Your task to perform on an android device: What is the news today? Image 0: 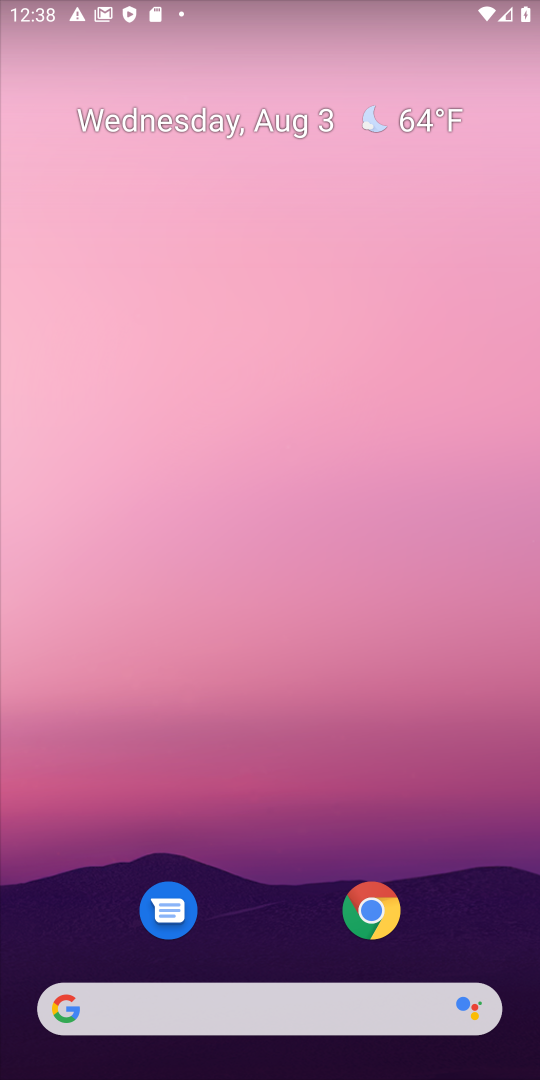
Step 0: drag from (372, 1004) to (218, 0)
Your task to perform on an android device: What is the news today? Image 1: 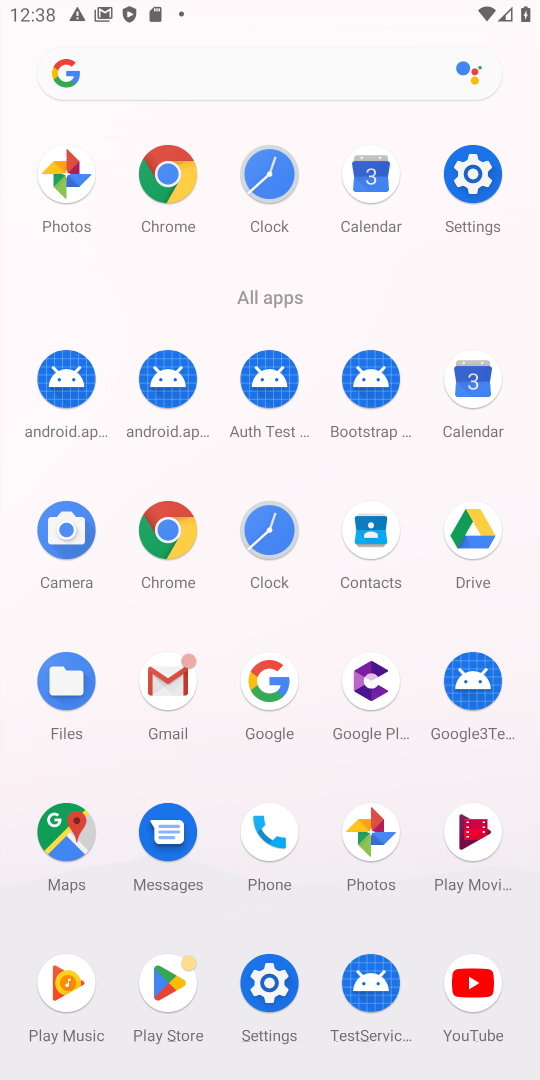
Step 1: click (180, 535)
Your task to perform on an android device: What is the news today? Image 2: 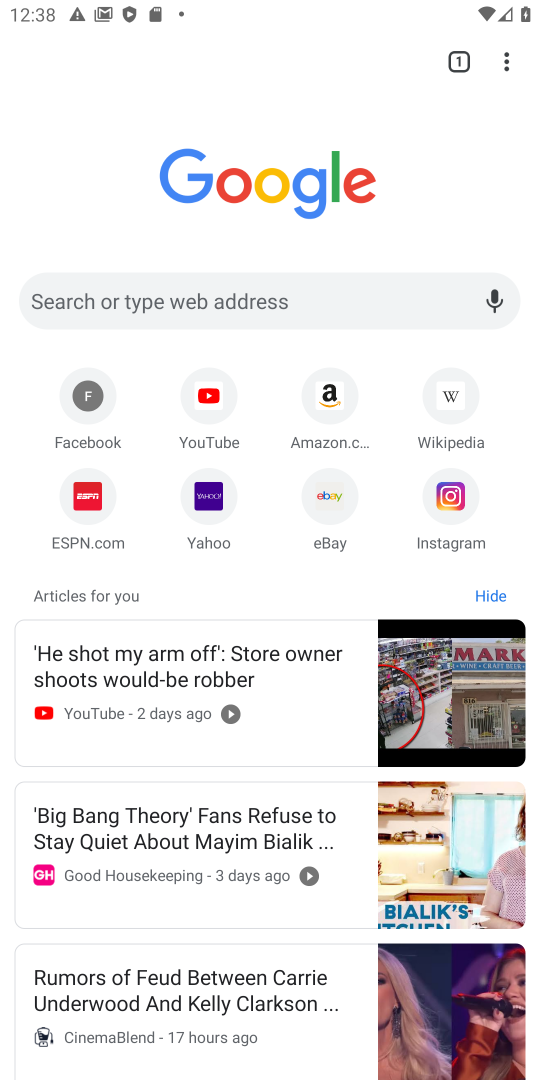
Step 2: click (302, 299)
Your task to perform on an android device: What is the news today? Image 3: 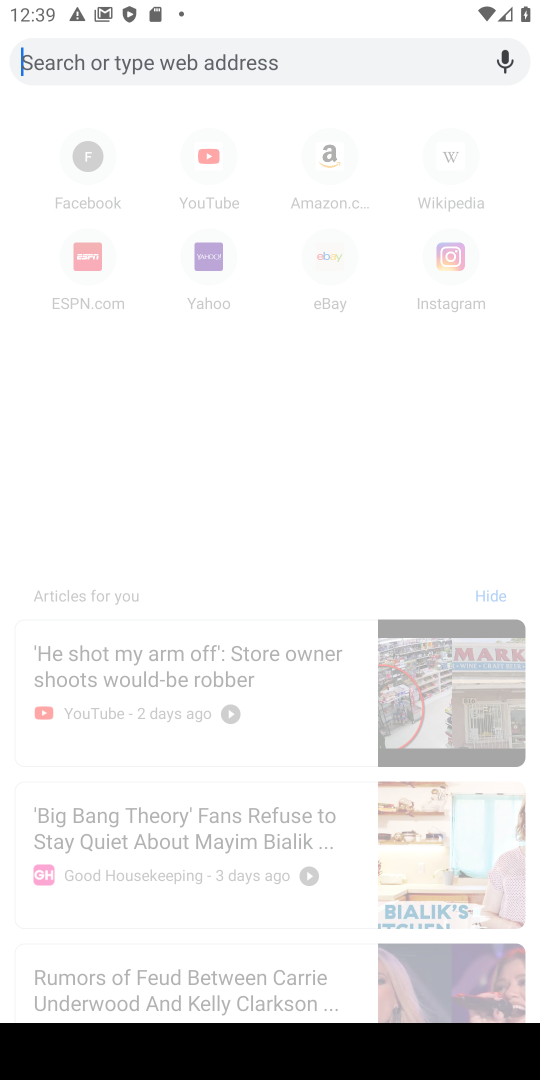
Step 3: type "whats is the news today"
Your task to perform on an android device: What is the news today? Image 4: 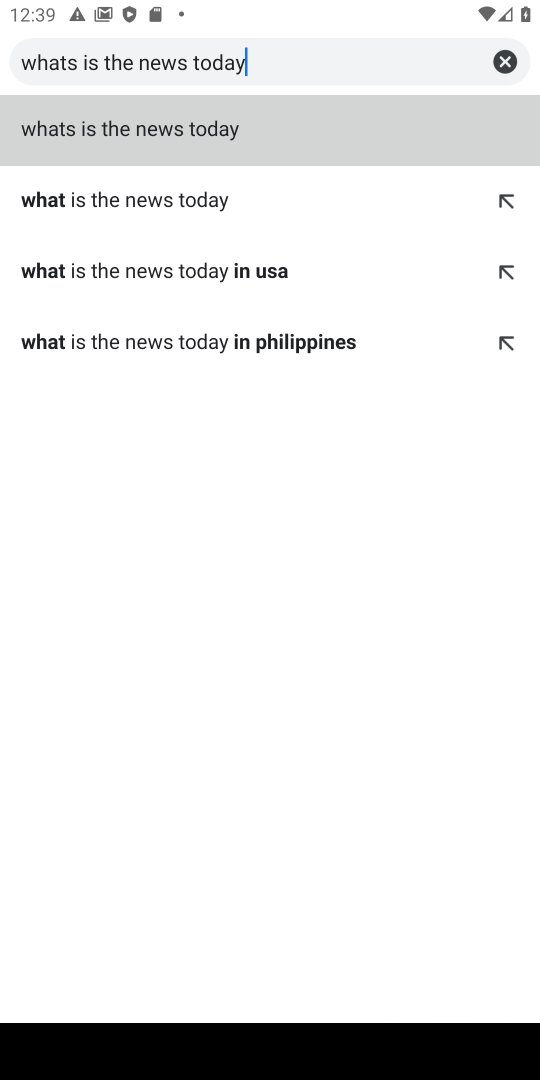
Step 4: click (274, 108)
Your task to perform on an android device: What is the news today? Image 5: 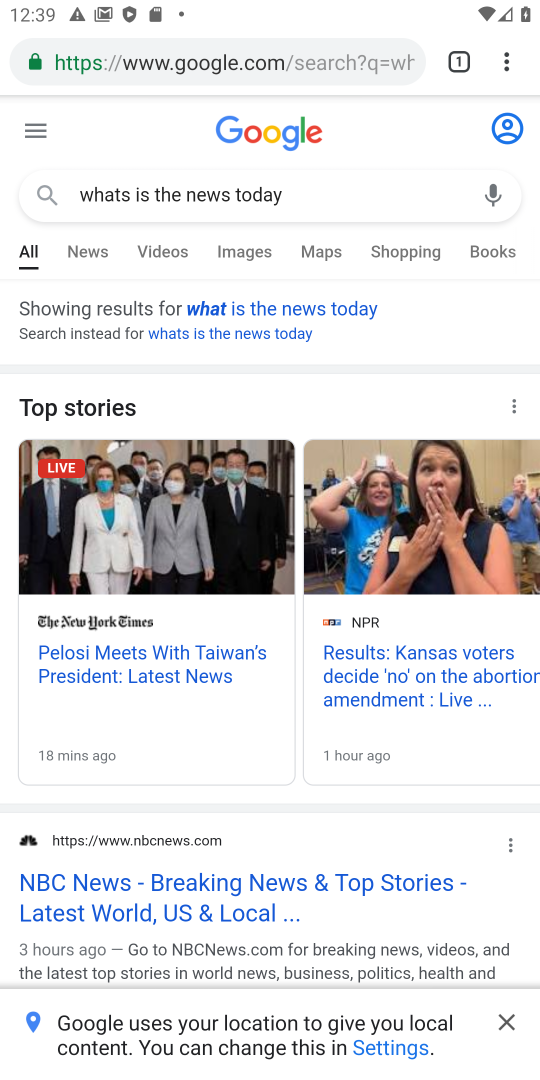
Step 5: task complete